Your task to perform on an android device: What's the weather today? Image 0: 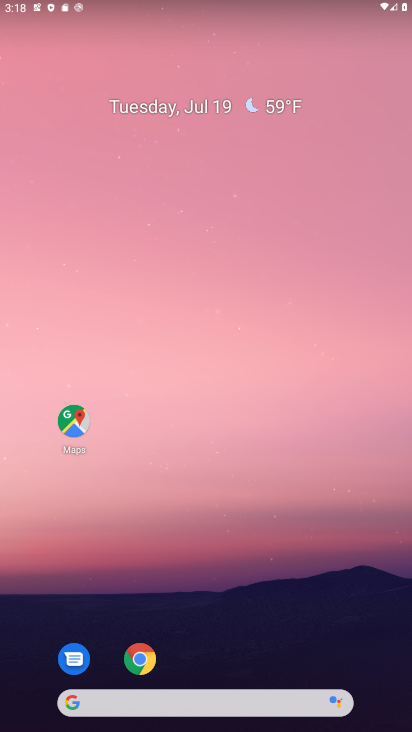
Step 0: drag from (175, 706) to (224, 233)
Your task to perform on an android device: What's the weather today? Image 1: 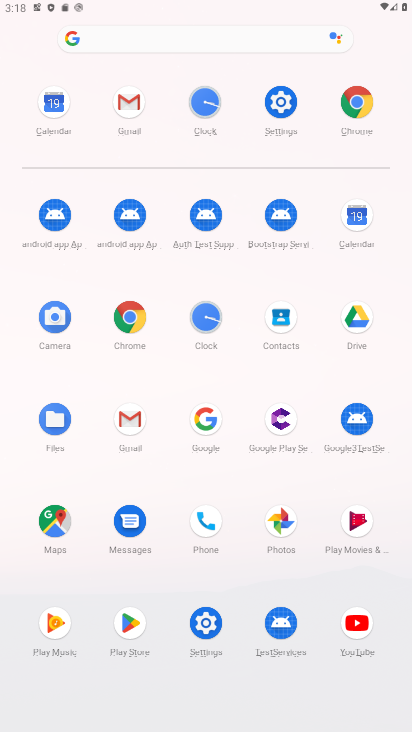
Step 1: click (205, 416)
Your task to perform on an android device: What's the weather today? Image 2: 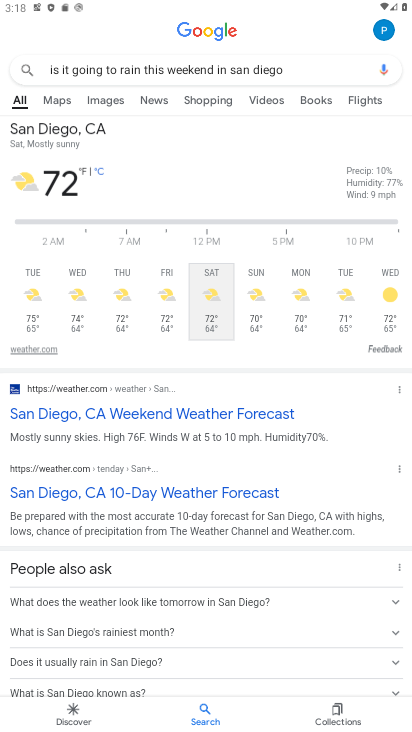
Step 2: click (36, 324)
Your task to perform on an android device: What's the weather today? Image 3: 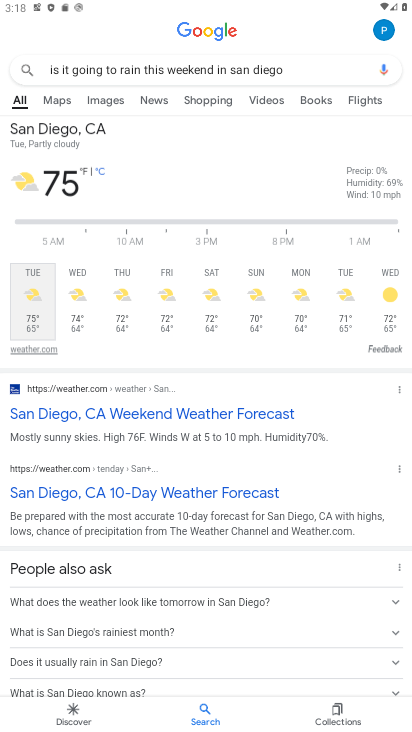
Step 3: task complete